Your task to perform on an android device: toggle notifications settings in the gmail app Image 0: 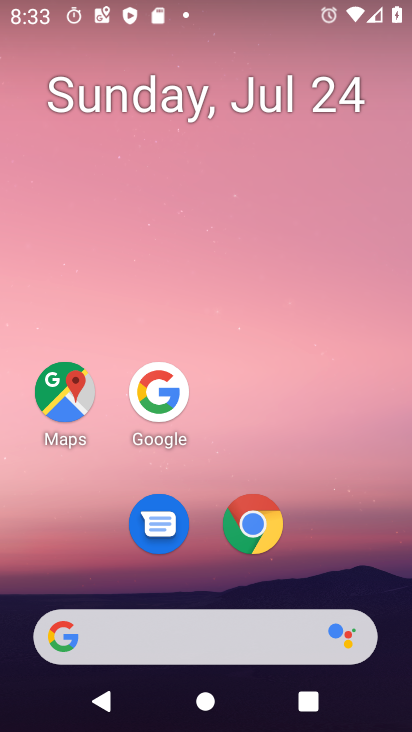
Step 0: press home button
Your task to perform on an android device: toggle notifications settings in the gmail app Image 1: 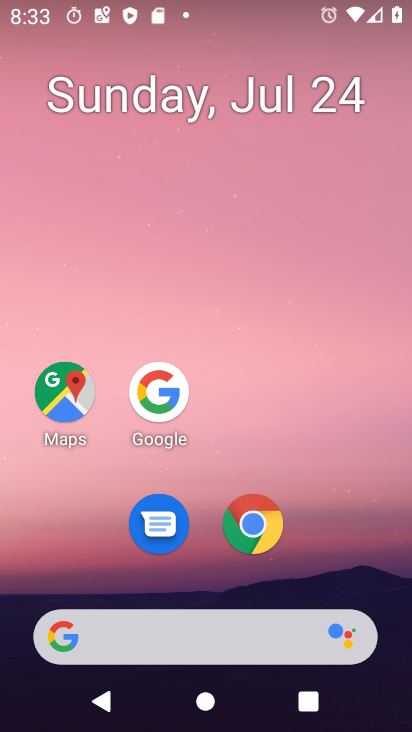
Step 1: drag from (215, 617) to (307, 129)
Your task to perform on an android device: toggle notifications settings in the gmail app Image 2: 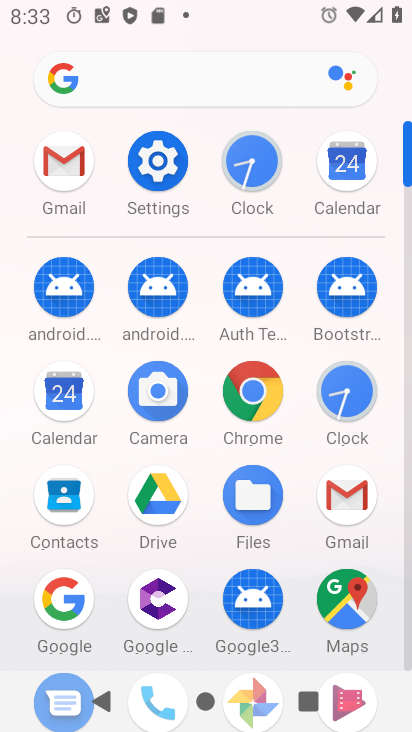
Step 2: click (71, 185)
Your task to perform on an android device: toggle notifications settings in the gmail app Image 3: 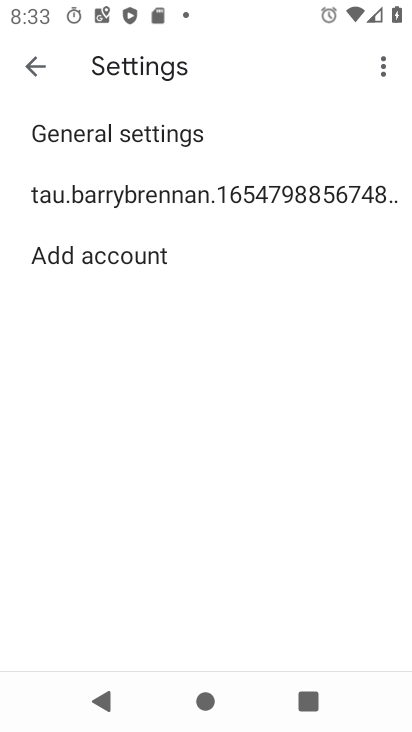
Step 3: click (204, 181)
Your task to perform on an android device: toggle notifications settings in the gmail app Image 4: 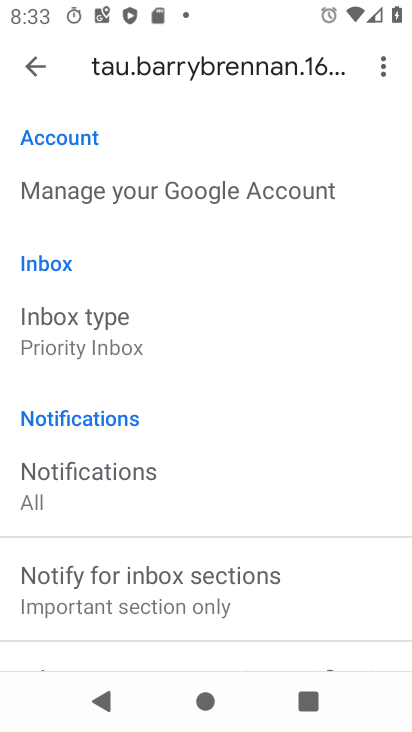
Step 4: drag from (222, 432) to (339, 214)
Your task to perform on an android device: toggle notifications settings in the gmail app Image 5: 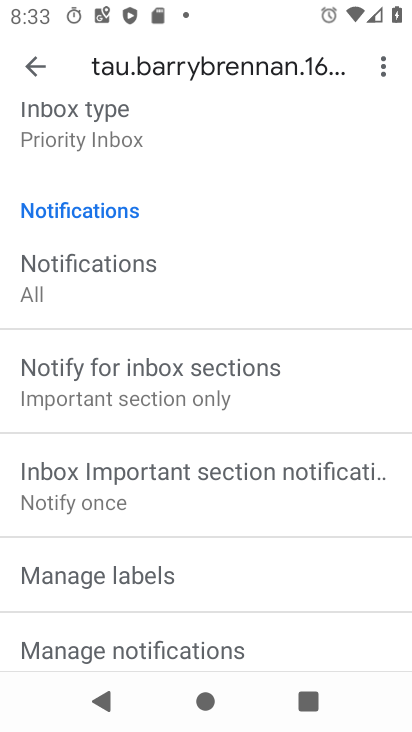
Step 5: click (78, 280)
Your task to perform on an android device: toggle notifications settings in the gmail app Image 6: 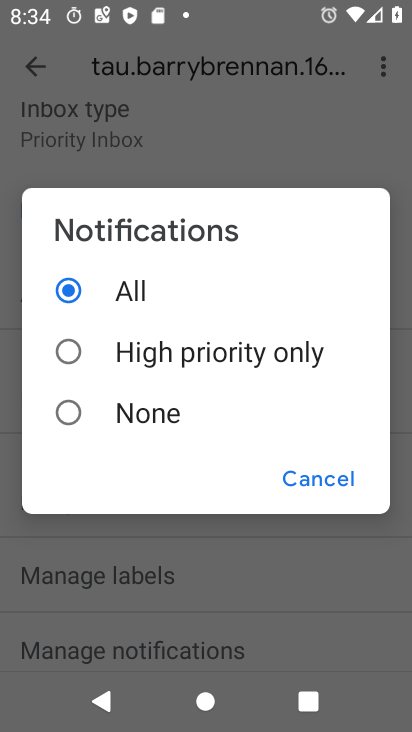
Step 6: click (70, 412)
Your task to perform on an android device: toggle notifications settings in the gmail app Image 7: 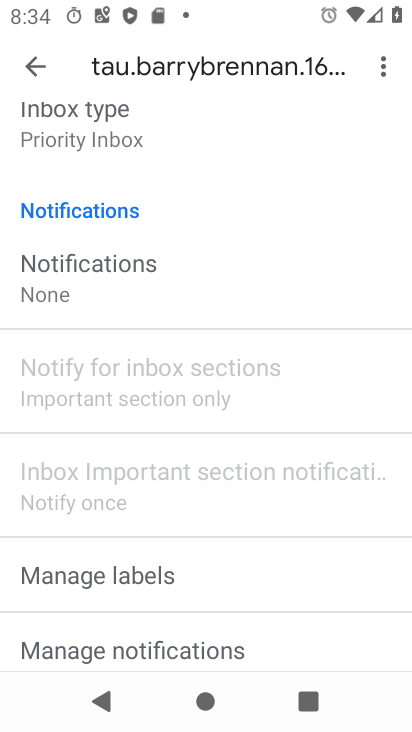
Step 7: task complete